Your task to perform on an android device: open app "File Manager" (install if not already installed) Image 0: 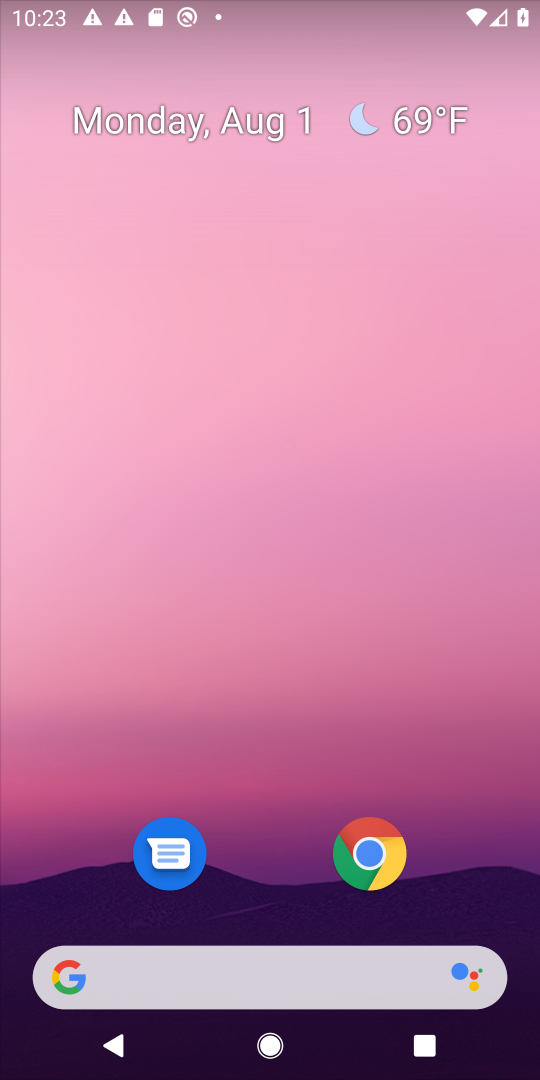
Step 0: drag from (417, 364) to (444, 174)
Your task to perform on an android device: open app "File Manager" (install if not already installed) Image 1: 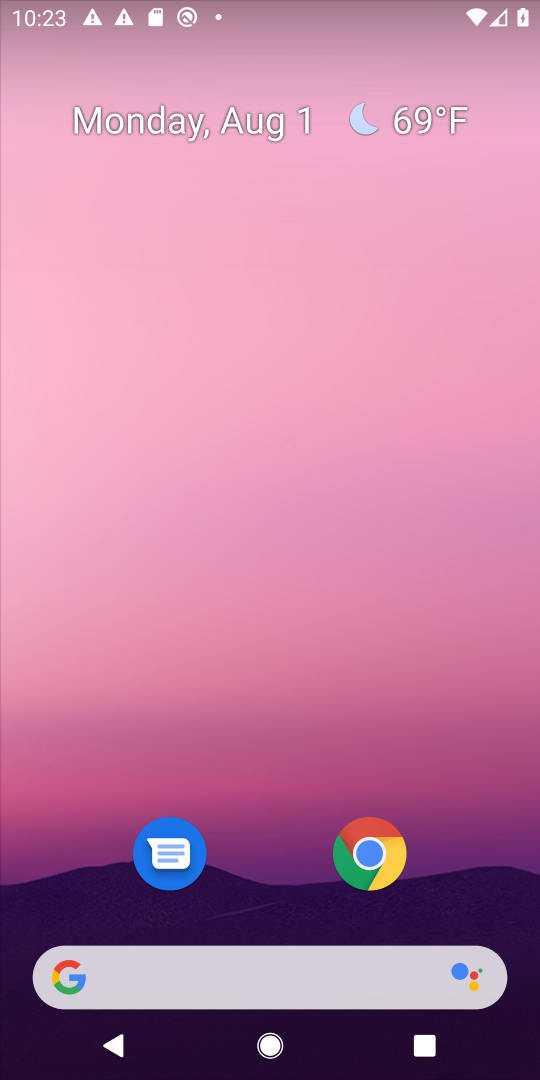
Step 1: drag from (301, 889) to (335, 345)
Your task to perform on an android device: open app "File Manager" (install if not already installed) Image 2: 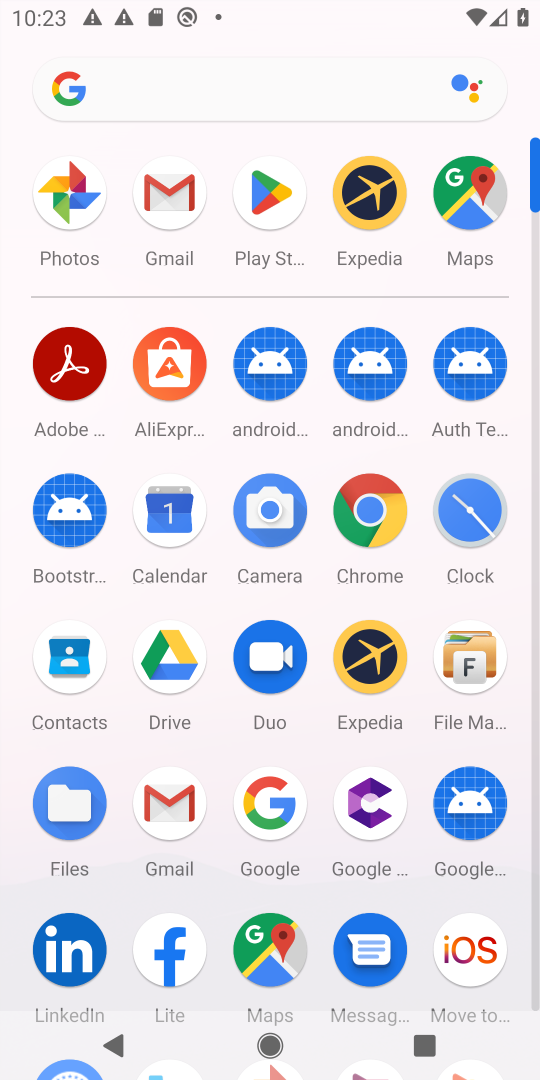
Step 2: click (284, 200)
Your task to perform on an android device: open app "File Manager" (install if not already installed) Image 3: 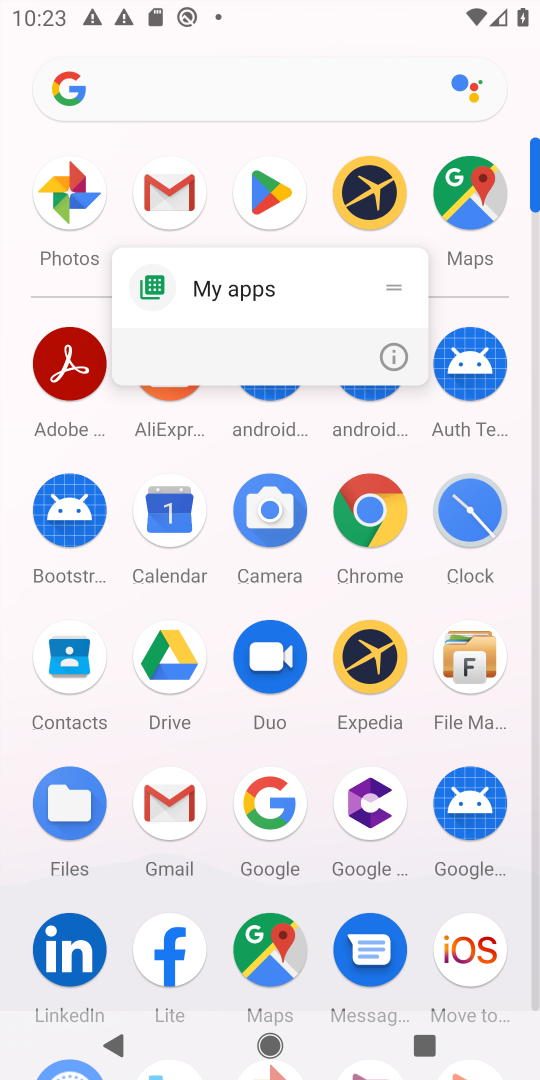
Step 3: click (390, 345)
Your task to perform on an android device: open app "File Manager" (install if not already installed) Image 4: 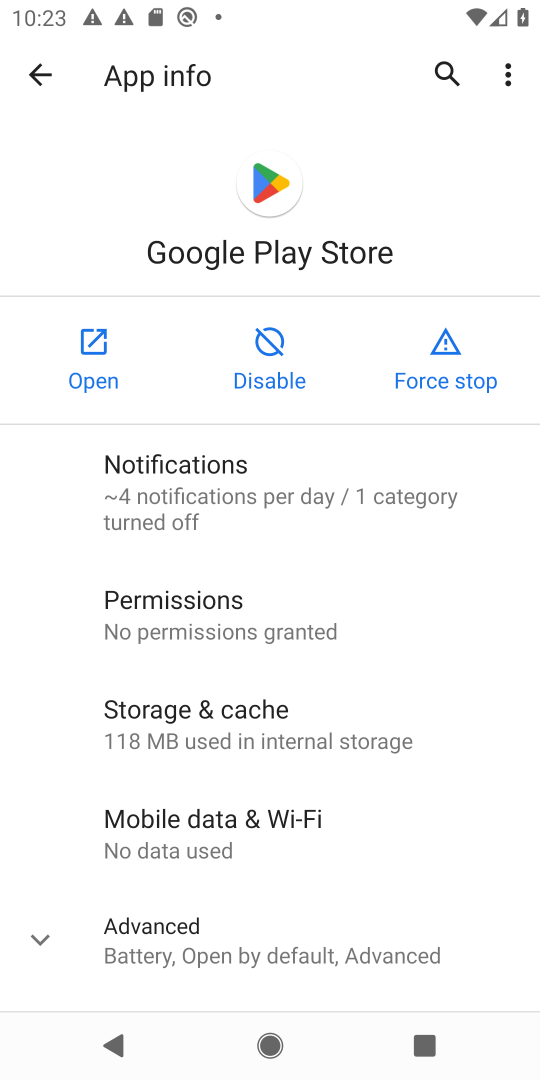
Step 4: click (102, 363)
Your task to perform on an android device: open app "File Manager" (install if not already installed) Image 5: 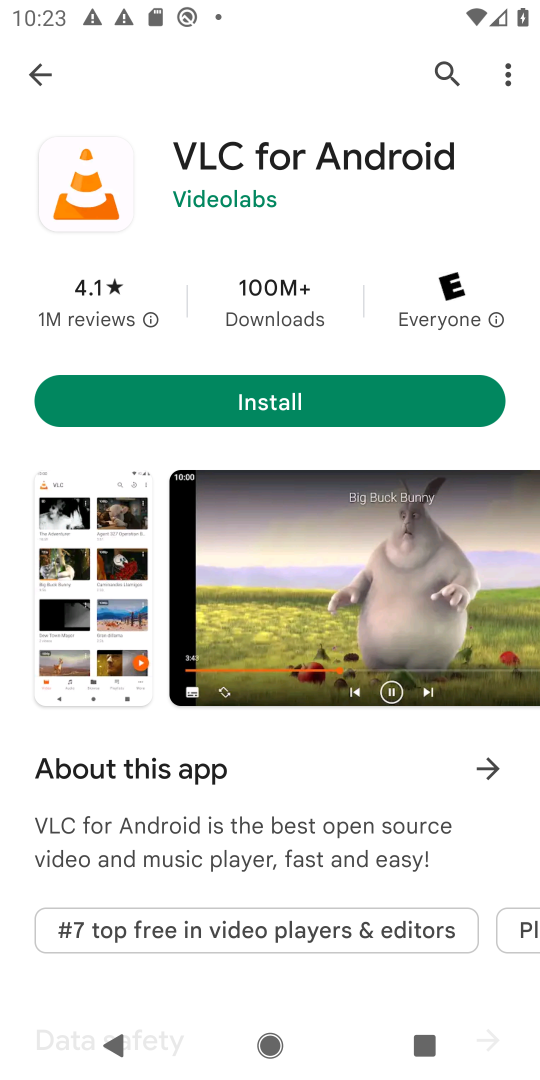
Step 5: click (457, 73)
Your task to perform on an android device: open app "File Manager" (install if not already installed) Image 6: 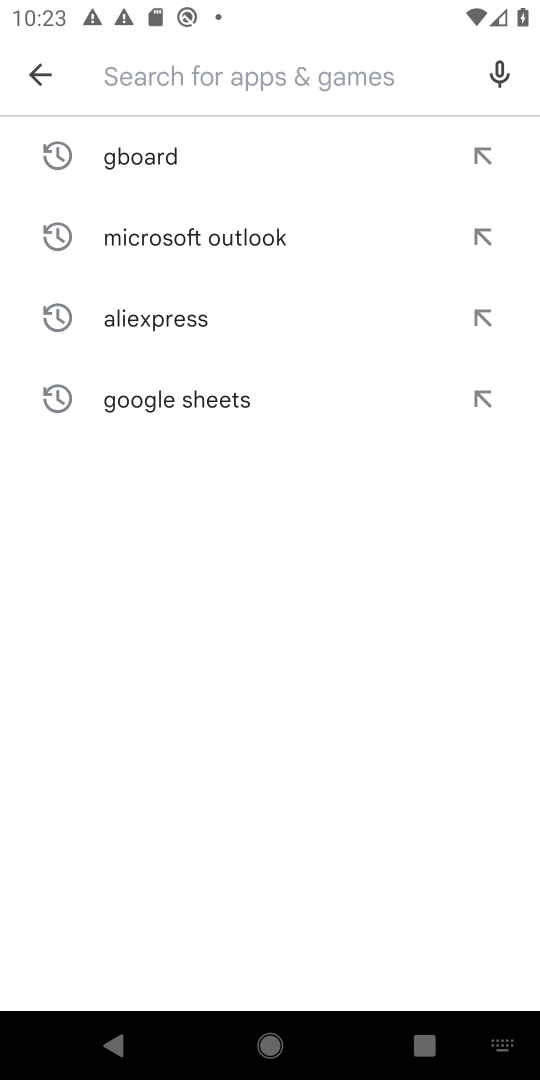
Step 6: type "File Manager"
Your task to perform on an android device: open app "File Manager" (install if not already installed) Image 7: 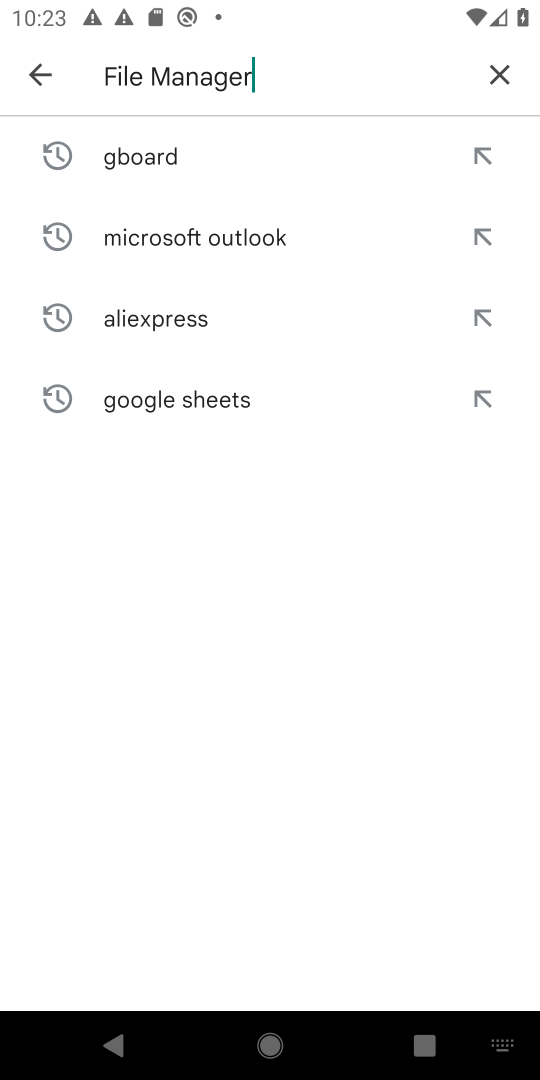
Step 7: type ""
Your task to perform on an android device: open app "File Manager" (install if not already installed) Image 8: 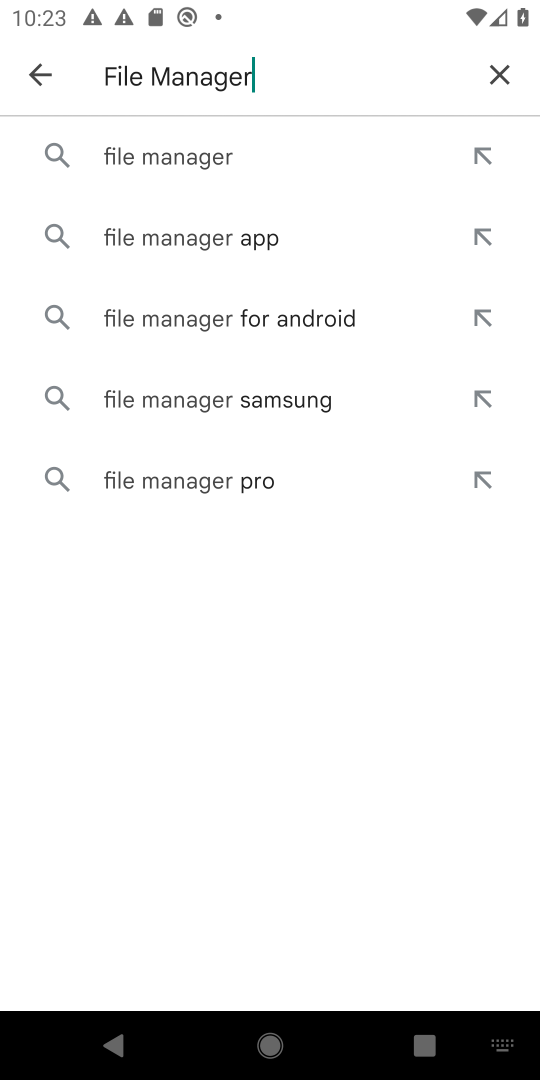
Step 8: click (169, 177)
Your task to perform on an android device: open app "File Manager" (install if not already installed) Image 9: 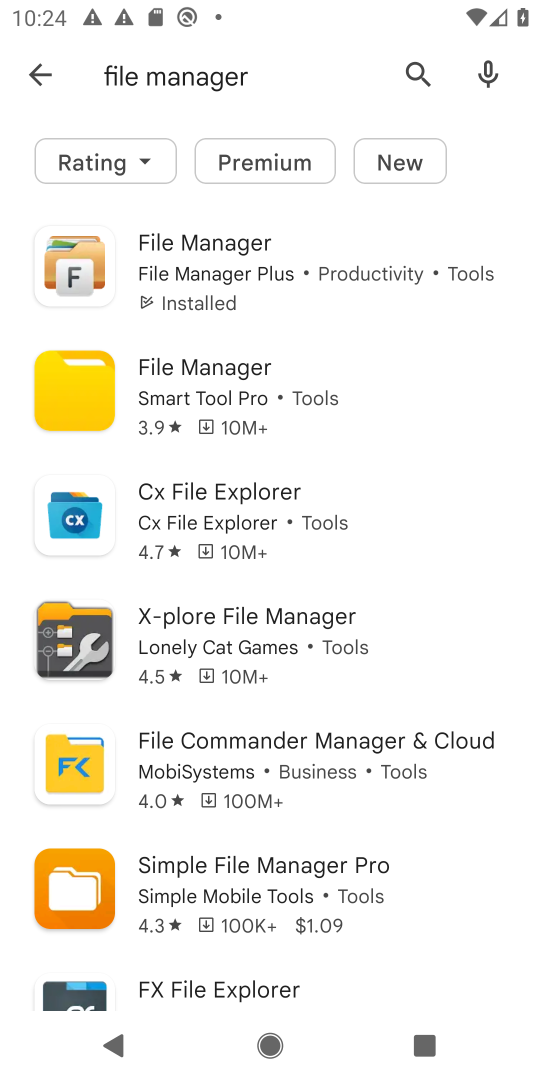
Step 9: click (239, 268)
Your task to perform on an android device: open app "File Manager" (install if not already installed) Image 10: 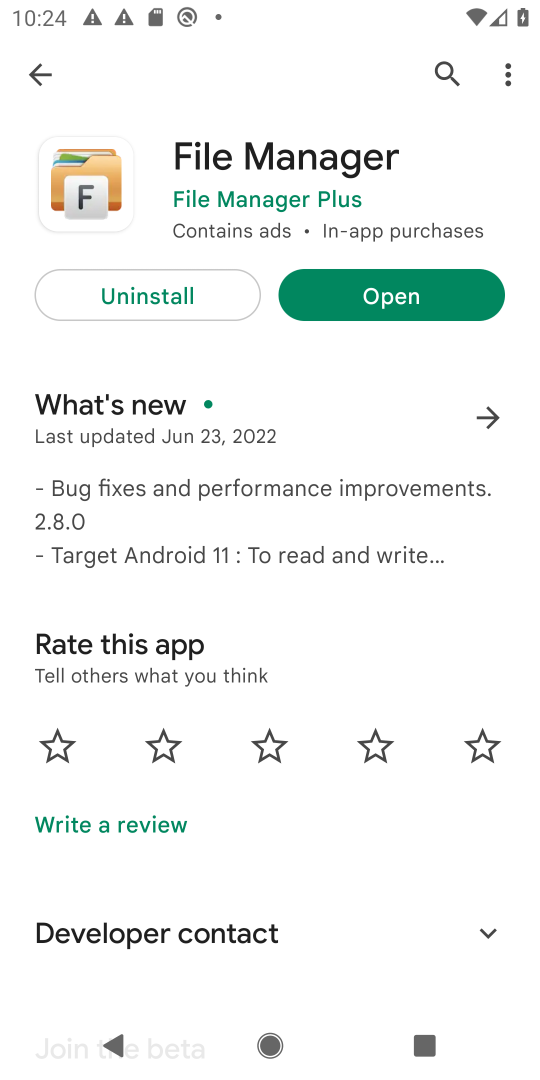
Step 10: click (375, 306)
Your task to perform on an android device: open app "File Manager" (install if not already installed) Image 11: 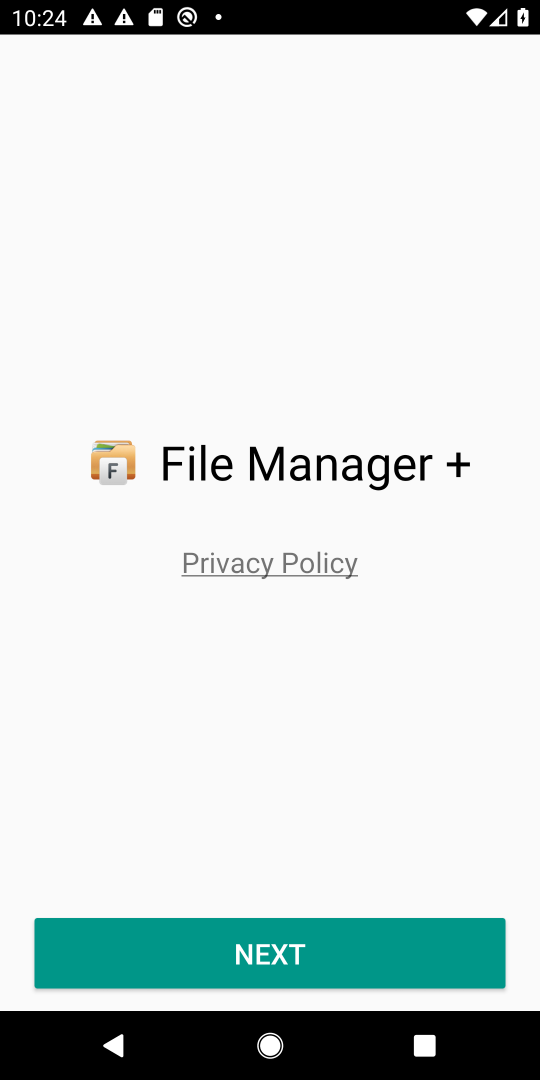
Step 11: task complete